Your task to perform on an android device: Open Google Maps Image 0: 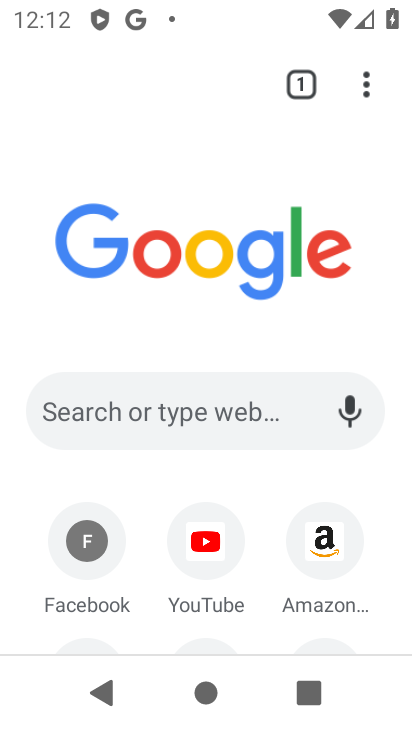
Step 0: press home button
Your task to perform on an android device: Open Google Maps Image 1: 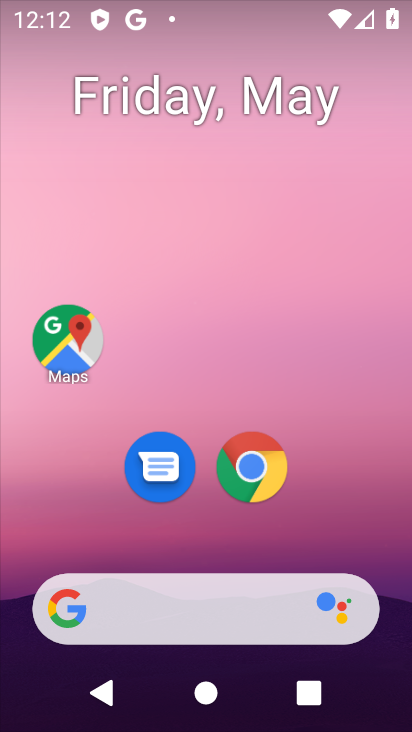
Step 1: click (65, 343)
Your task to perform on an android device: Open Google Maps Image 2: 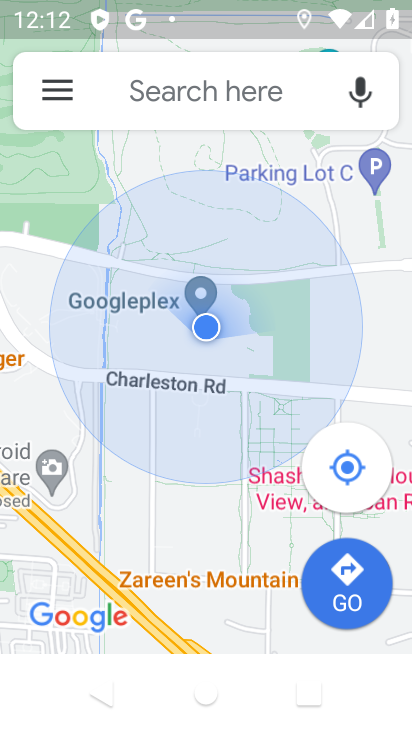
Step 2: task complete